Your task to perform on an android device: find snoozed emails in the gmail app Image 0: 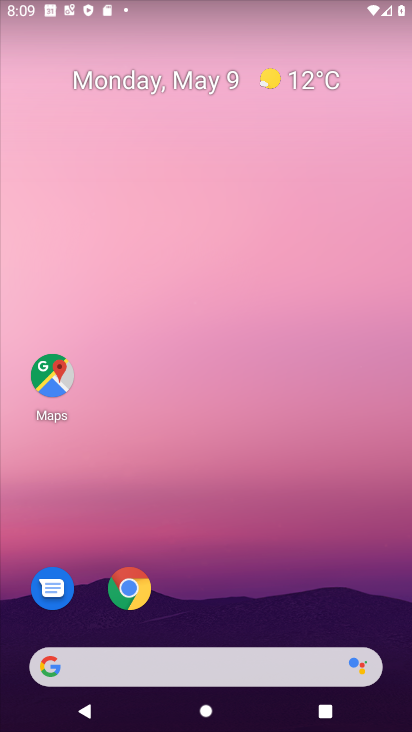
Step 0: drag from (154, 672) to (293, 55)
Your task to perform on an android device: find snoozed emails in the gmail app Image 1: 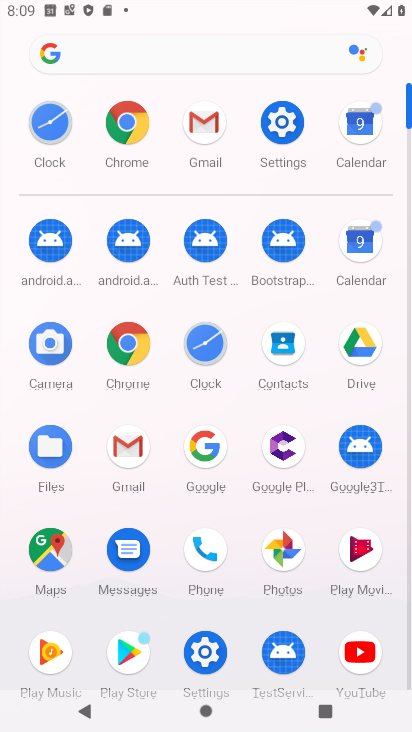
Step 1: click (204, 122)
Your task to perform on an android device: find snoozed emails in the gmail app Image 2: 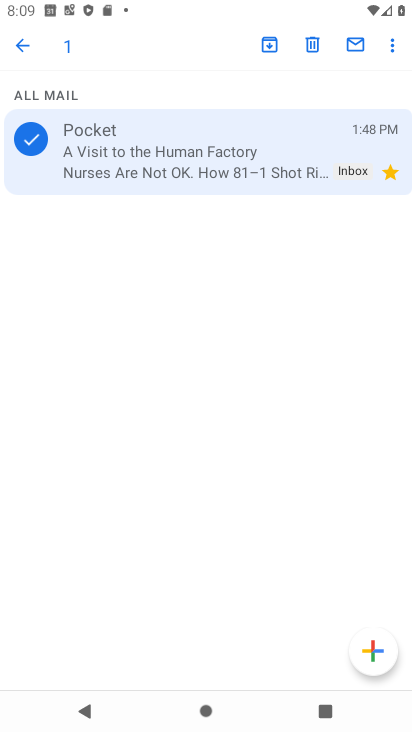
Step 2: click (20, 45)
Your task to perform on an android device: find snoozed emails in the gmail app Image 3: 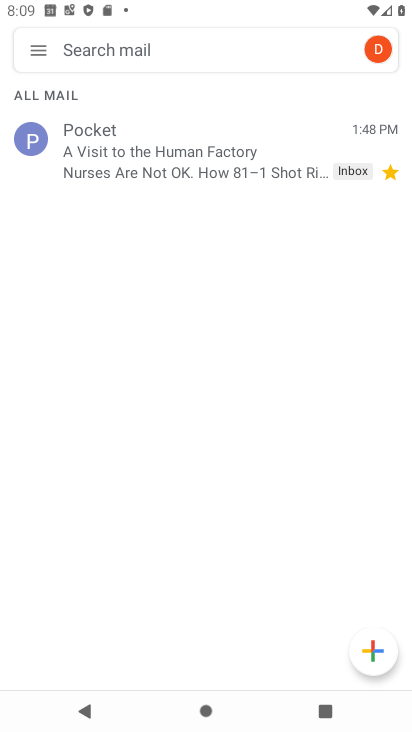
Step 3: click (41, 49)
Your task to perform on an android device: find snoozed emails in the gmail app Image 4: 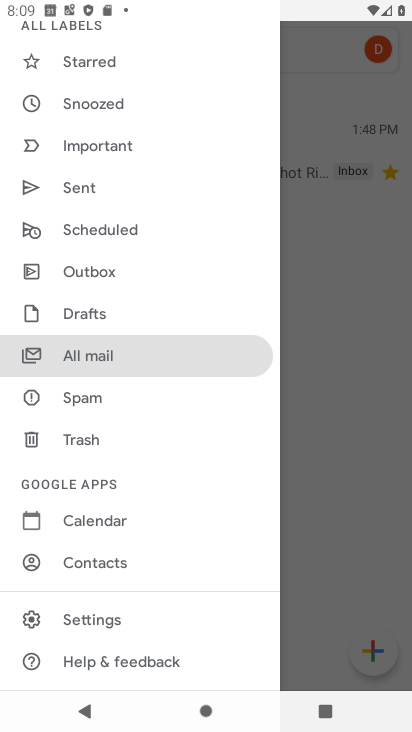
Step 4: click (111, 98)
Your task to perform on an android device: find snoozed emails in the gmail app Image 5: 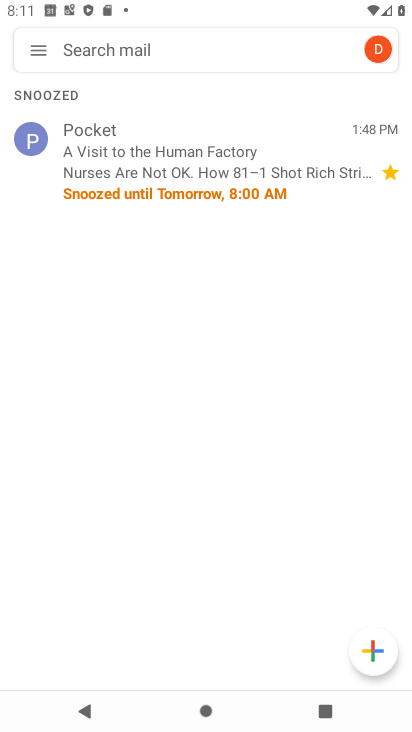
Step 5: task complete